Your task to perform on an android device: add a contact Image 0: 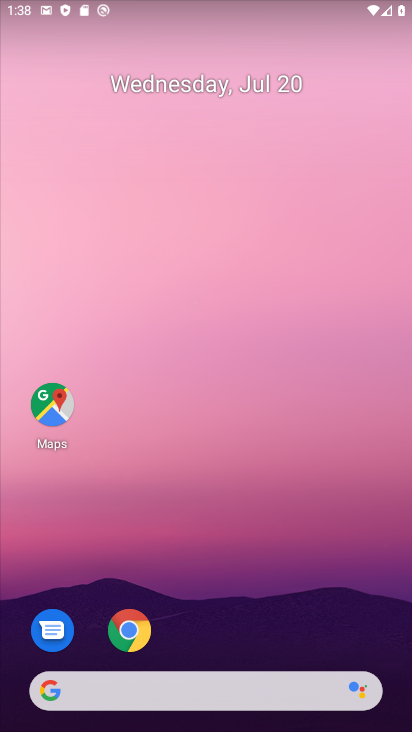
Step 0: drag from (204, 694) to (335, 31)
Your task to perform on an android device: add a contact Image 1: 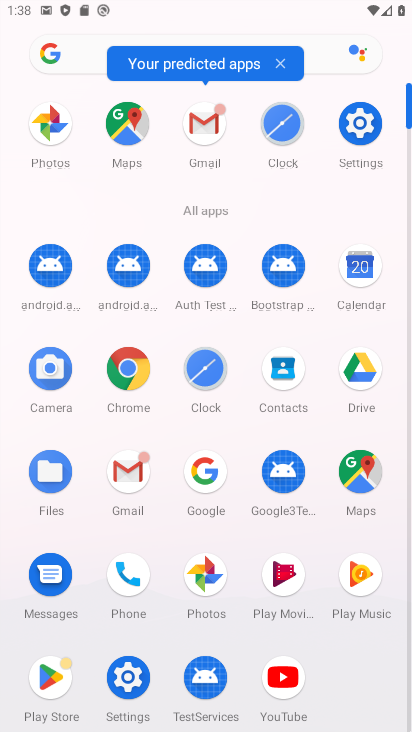
Step 1: click (284, 368)
Your task to perform on an android device: add a contact Image 2: 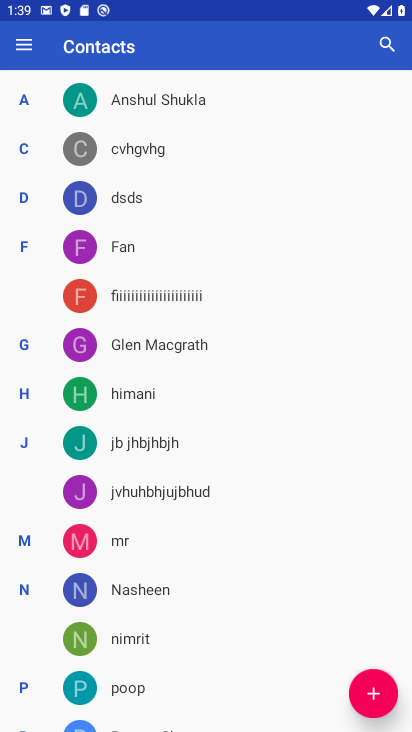
Step 2: click (374, 695)
Your task to perform on an android device: add a contact Image 3: 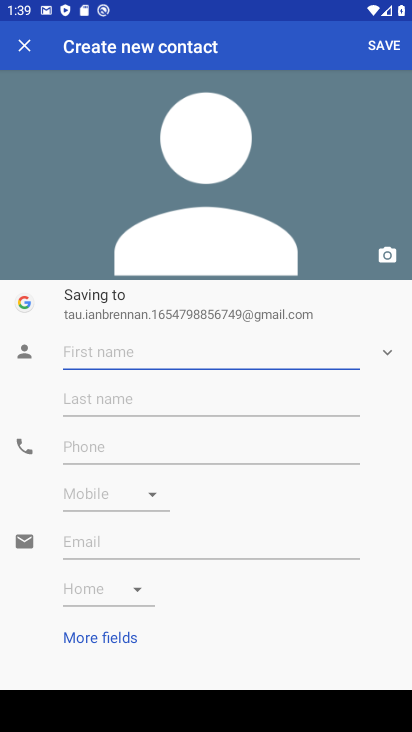
Step 3: click (286, 356)
Your task to perform on an android device: add a contact Image 4: 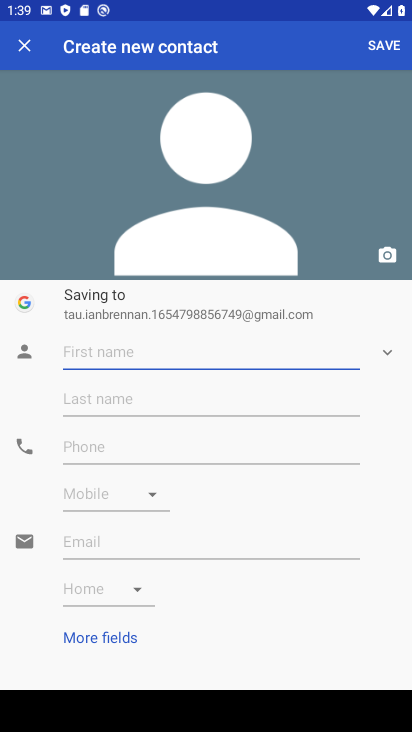
Step 4: type "Abhisel"
Your task to perform on an android device: add a contact Image 5: 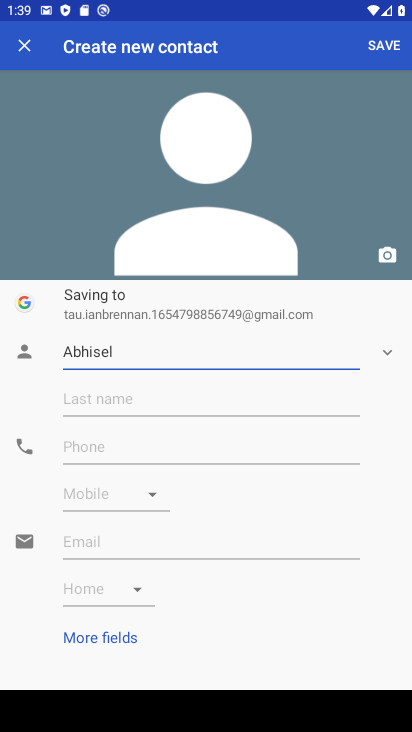
Step 5: click (127, 391)
Your task to perform on an android device: add a contact Image 6: 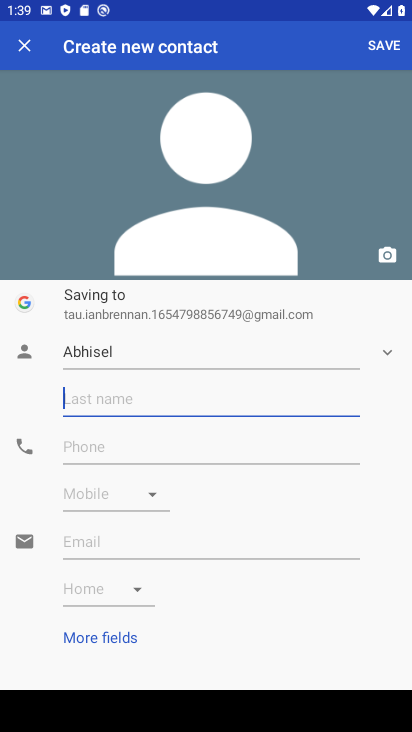
Step 6: type "Ronaldo"
Your task to perform on an android device: add a contact Image 7: 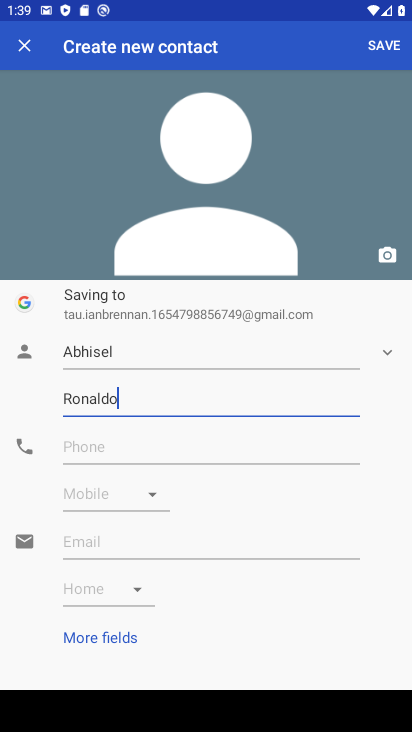
Step 7: click (180, 450)
Your task to perform on an android device: add a contact Image 8: 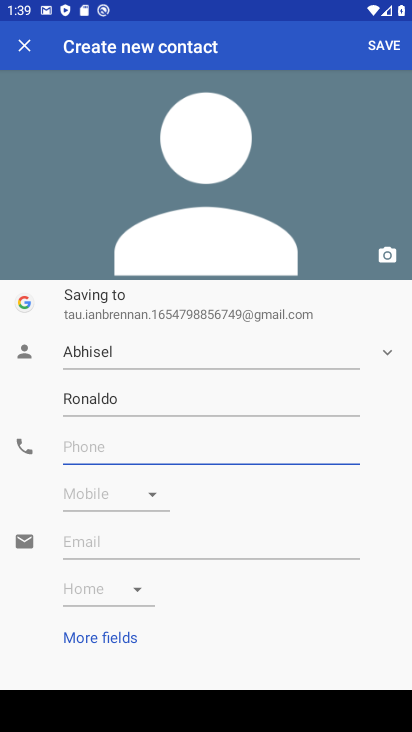
Step 8: type "009988776655"
Your task to perform on an android device: add a contact Image 9: 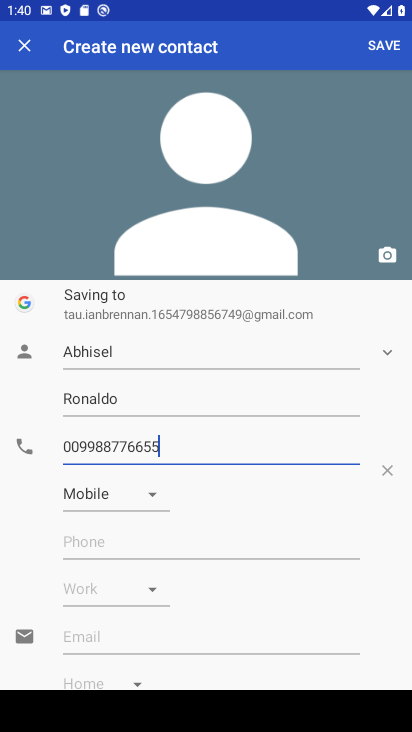
Step 9: click (390, 43)
Your task to perform on an android device: add a contact Image 10: 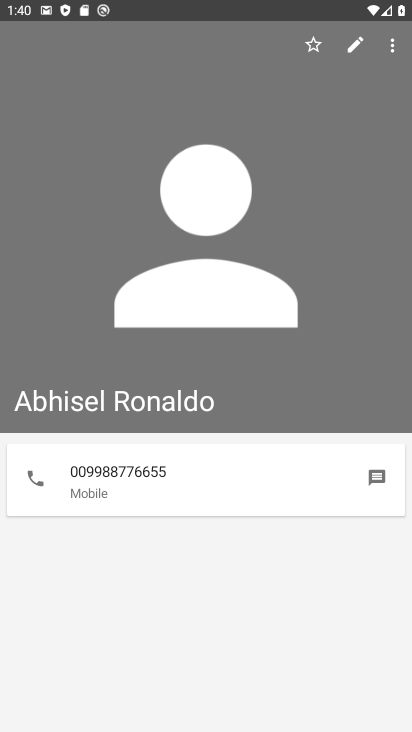
Step 10: task complete